Your task to perform on an android device: Go to sound settings Image 0: 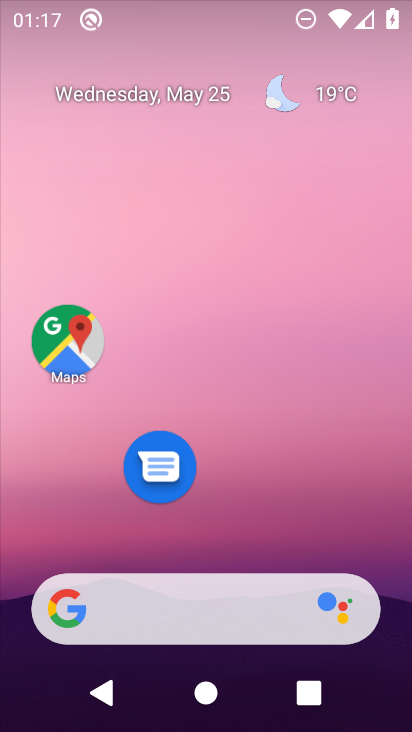
Step 0: click (302, 158)
Your task to perform on an android device: Go to sound settings Image 1: 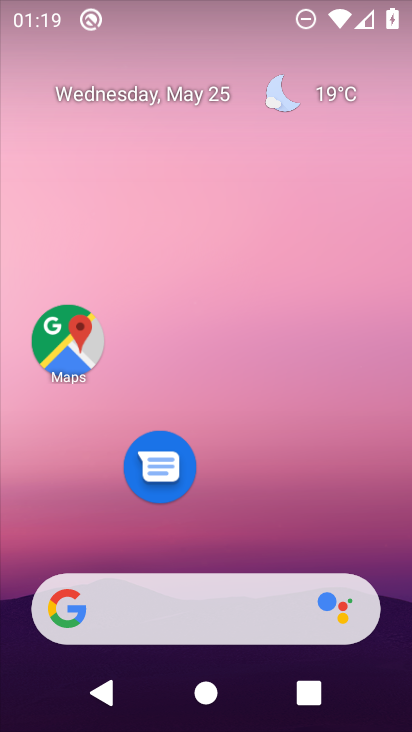
Step 1: drag from (33, 686) to (122, 137)
Your task to perform on an android device: Go to sound settings Image 2: 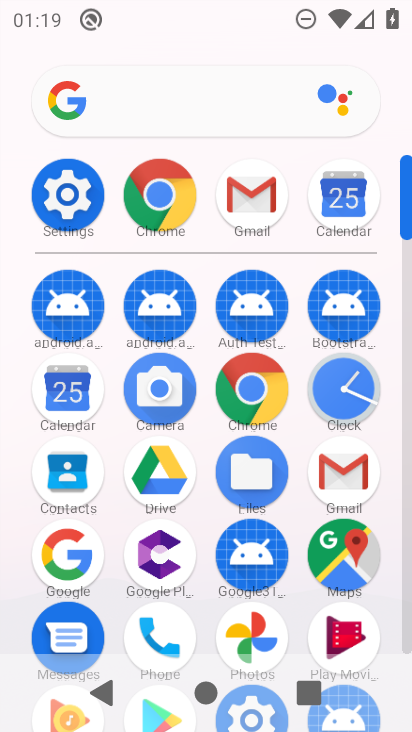
Step 2: click (59, 214)
Your task to perform on an android device: Go to sound settings Image 3: 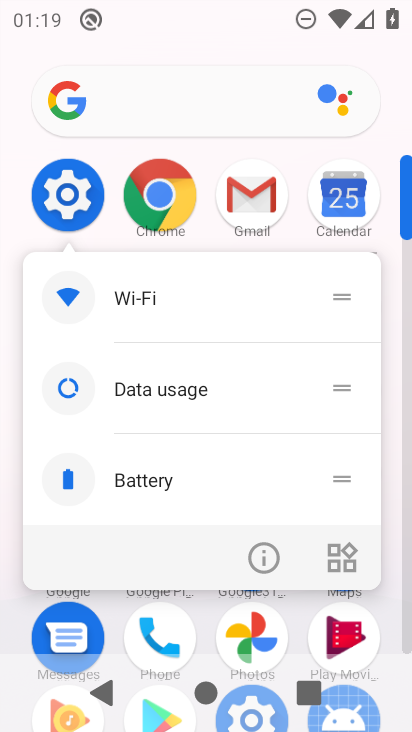
Step 3: click (266, 530)
Your task to perform on an android device: Go to sound settings Image 4: 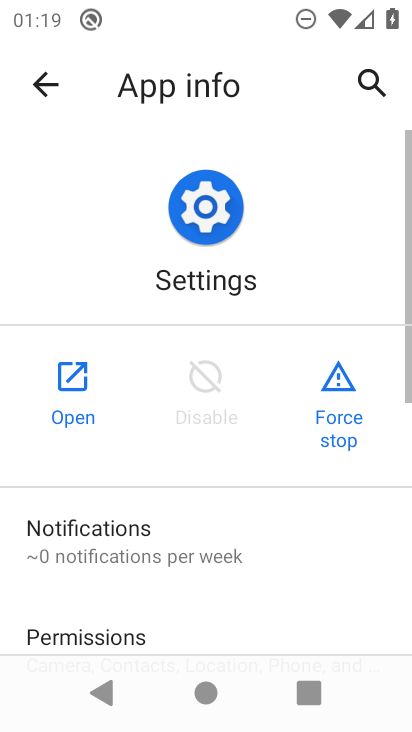
Step 4: click (88, 382)
Your task to perform on an android device: Go to sound settings Image 5: 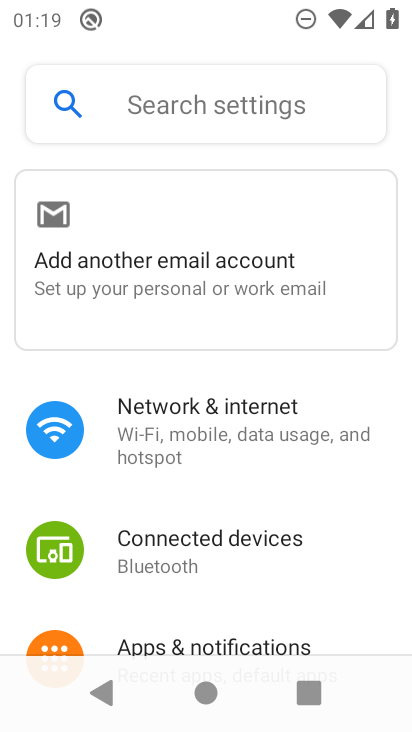
Step 5: drag from (258, 633) to (344, 1)
Your task to perform on an android device: Go to sound settings Image 6: 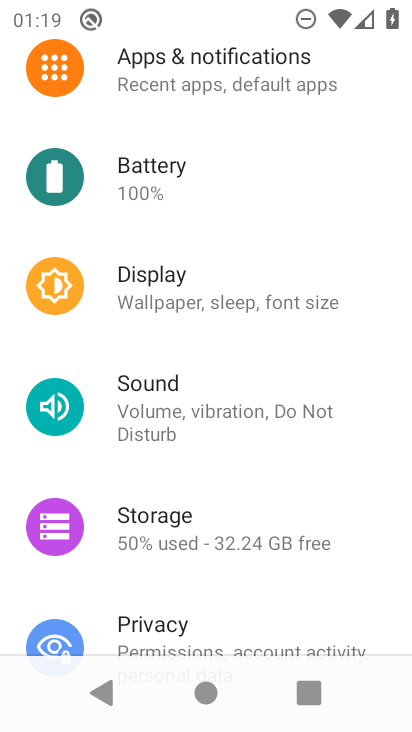
Step 6: click (158, 395)
Your task to perform on an android device: Go to sound settings Image 7: 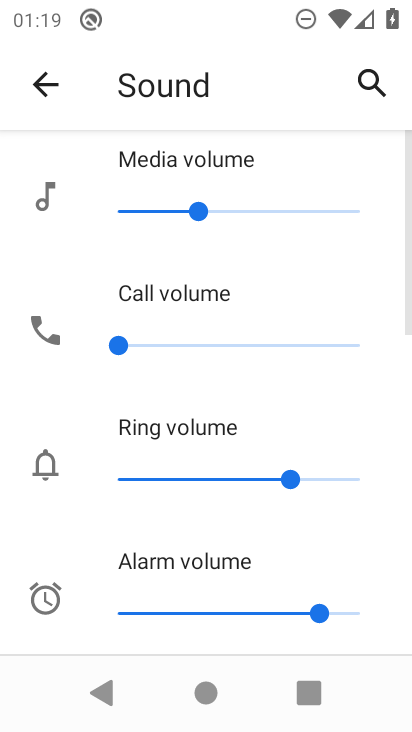
Step 7: task complete